Your task to perform on an android device: stop showing notifications on the lock screen Image 0: 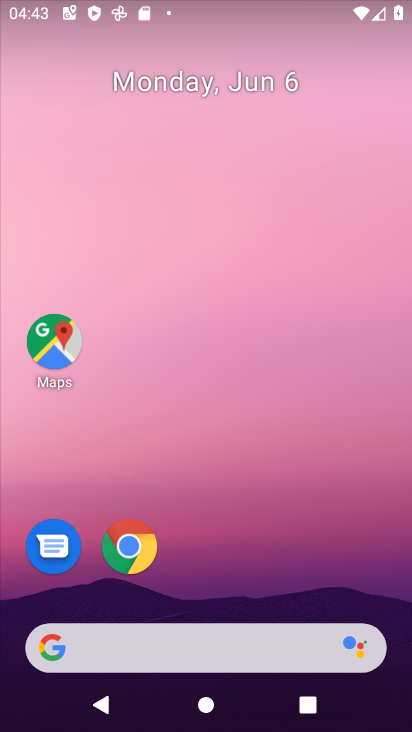
Step 0: drag from (305, 588) to (262, 226)
Your task to perform on an android device: stop showing notifications on the lock screen Image 1: 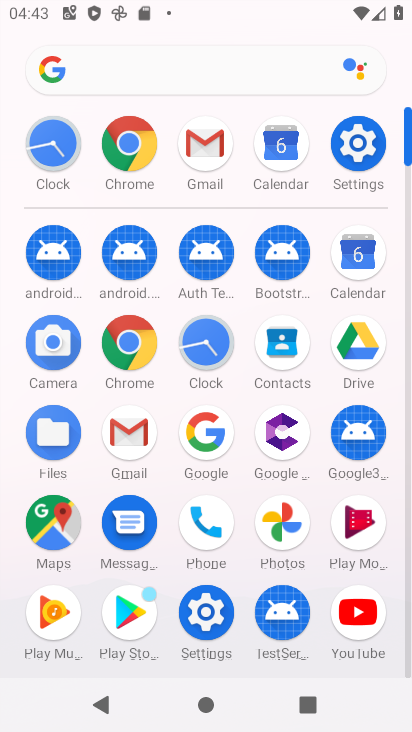
Step 1: click (360, 130)
Your task to perform on an android device: stop showing notifications on the lock screen Image 2: 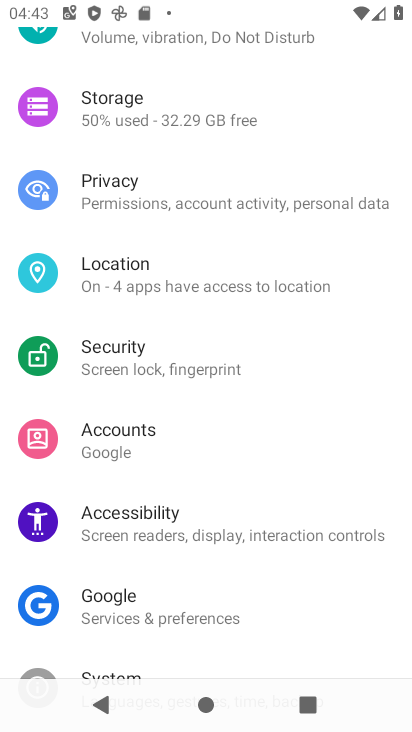
Step 2: click (187, 295)
Your task to perform on an android device: stop showing notifications on the lock screen Image 3: 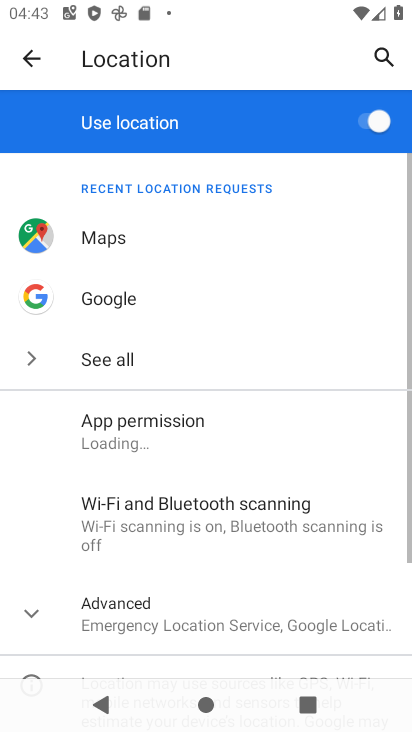
Step 3: task complete